Your task to perform on an android device: Go to wifi settings Image 0: 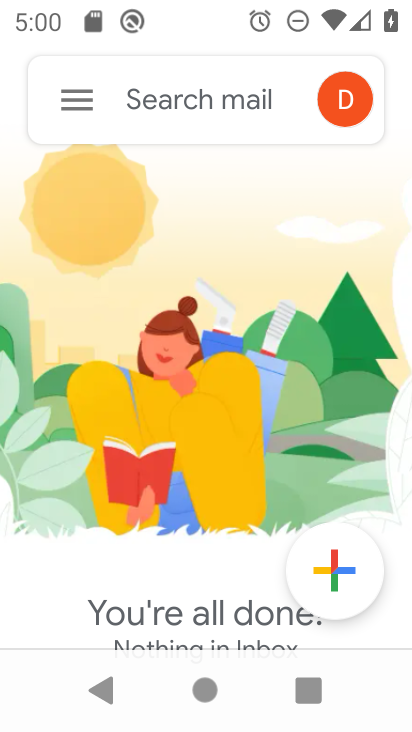
Step 0: press home button
Your task to perform on an android device: Go to wifi settings Image 1: 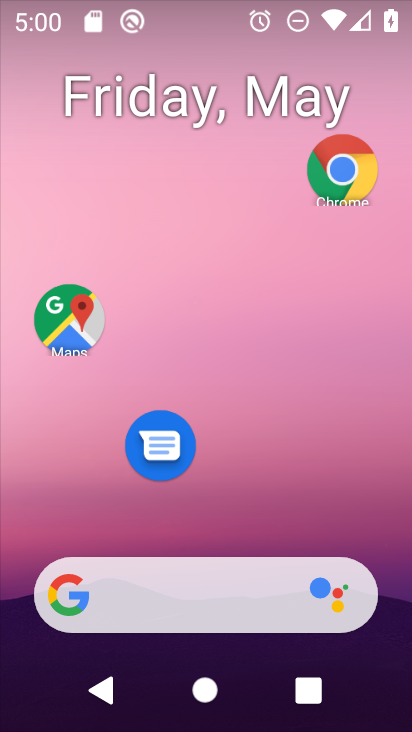
Step 1: drag from (168, 515) to (168, 181)
Your task to perform on an android device: Go to wifi settings Image 2: 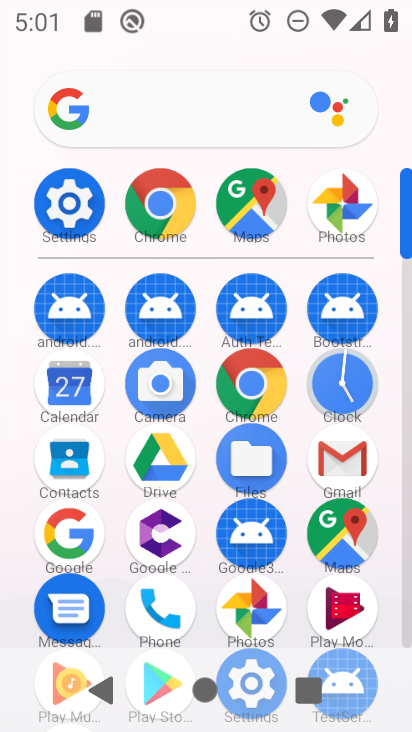
Step 2: click (64, 211)
Your task to perform on an android device: Go to wifi settings Image 3: 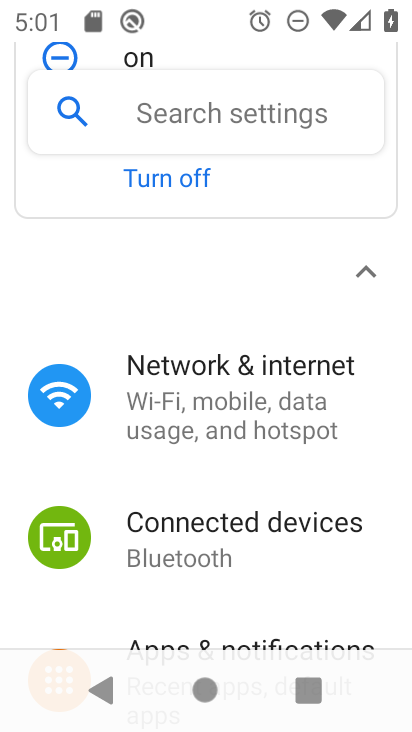
Step 3: drag from (248, 575) to (262, 277)
Your task to perform on an android device: Go to wifi settings Image 4: 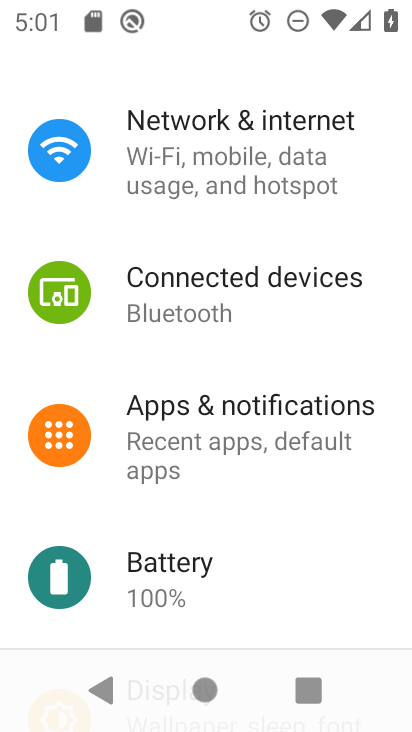
Step 4: drag from (273, 556) to (309, 282)
Your task to perform on an android device: Go to wifi settings Image 5: 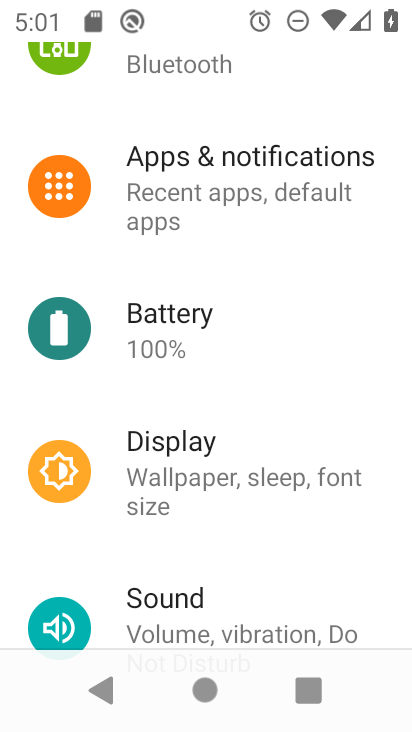
Step 5: drag from (261, 232) to (268, 709)
Your task to perform on an android device: Go to wifi settings Image 6: 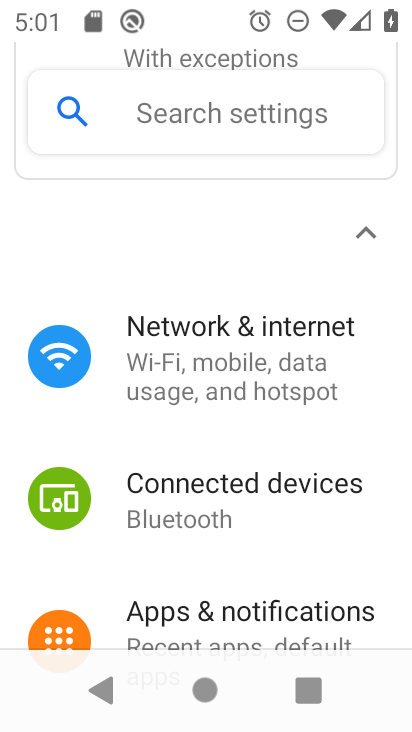
Step 6: click (248, 323)
Your task to perform on an android device: Go to wifi settings Image 7: 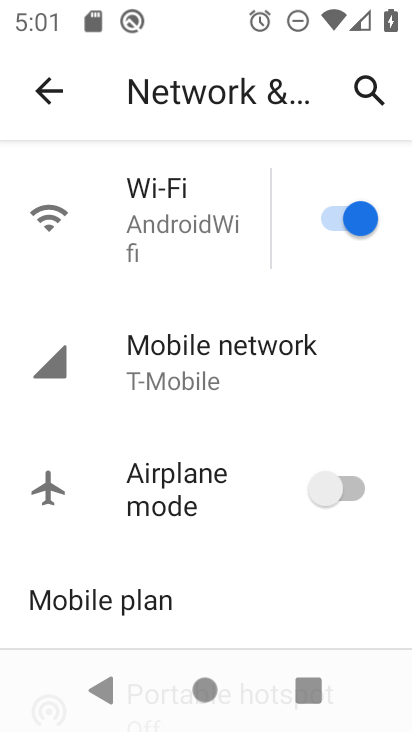
Step 7: click (198, 225)
Your task to perform on an android device: Go to wifi settings Image 8: 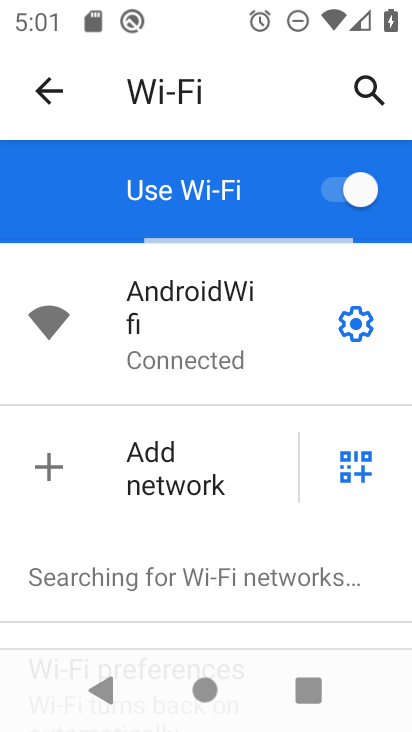
Step 8: task complete